Your task to perform on an android device: Open Android settings Image 0: 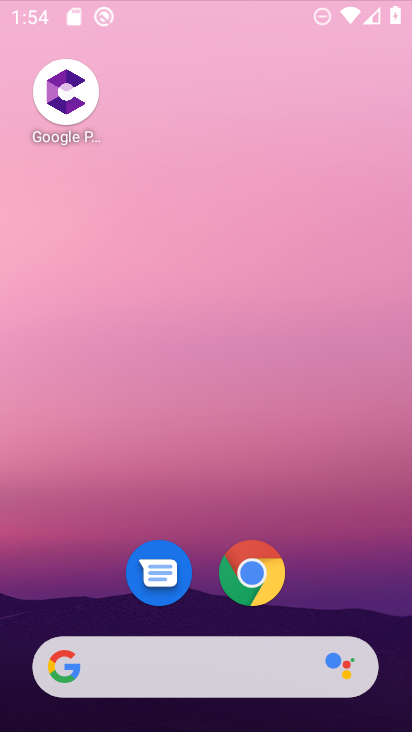
Step 0: drag from (291, 511) to (223, 145)
Your task to perform on an android device: Open Android settings Image 1: 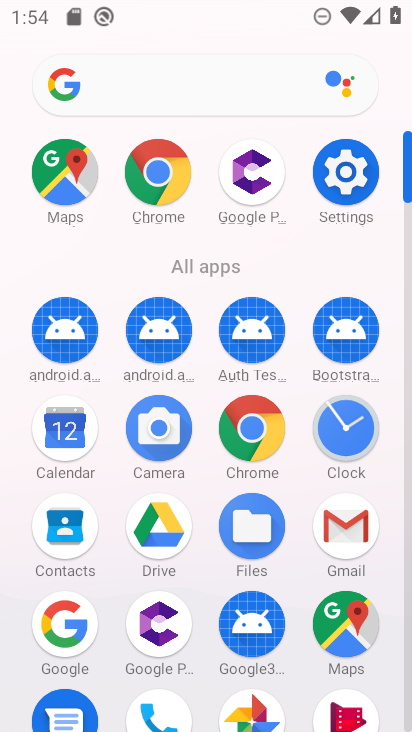
Step 1: click (338, 161)
Your task to perform on an android device: Open Android settings Image 2: 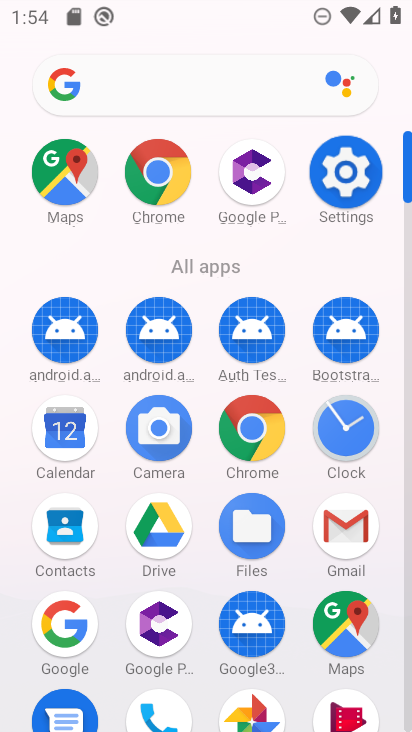
Step 2: click (338, 161)
Your task to perform on an android device: Open Android settings Image 3: 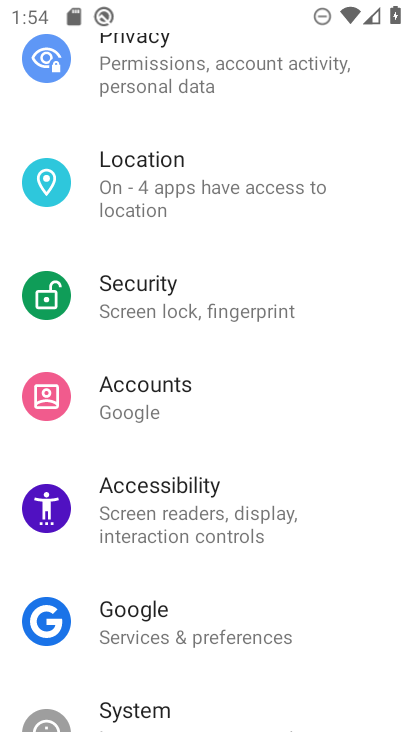
Step 3: drag from (210, 555) to (86, 135)
Your task to perform on an android device: Open Android settings Image 4: 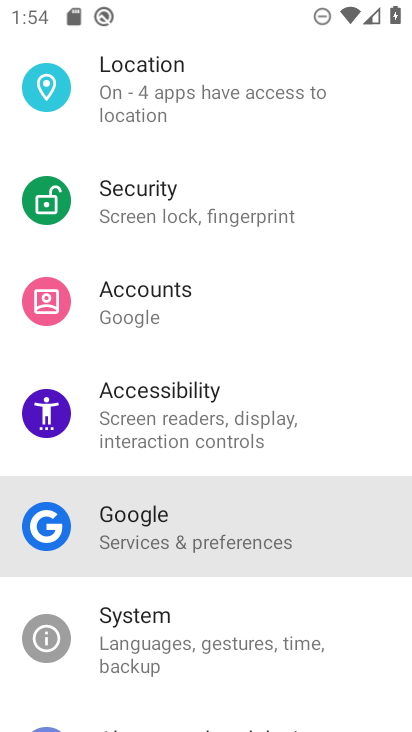
Step 4: drag from (173, 400) to (68, 112)
Your task to perform on an android device: Open Android settings Image 5: 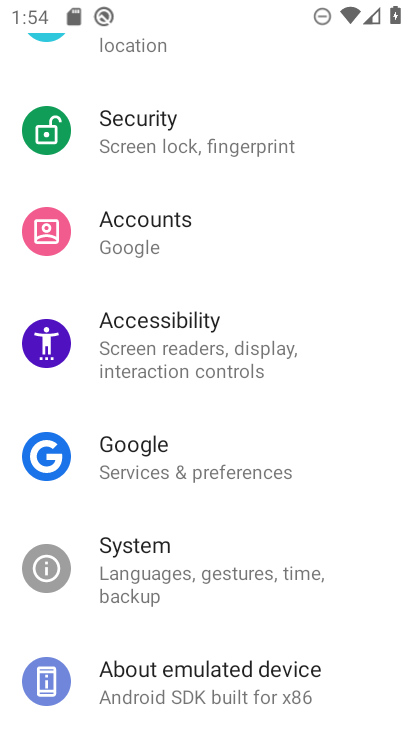
Step 5: click (193, 684)
Your task to perform on an android device: Open Android settings Image 6: 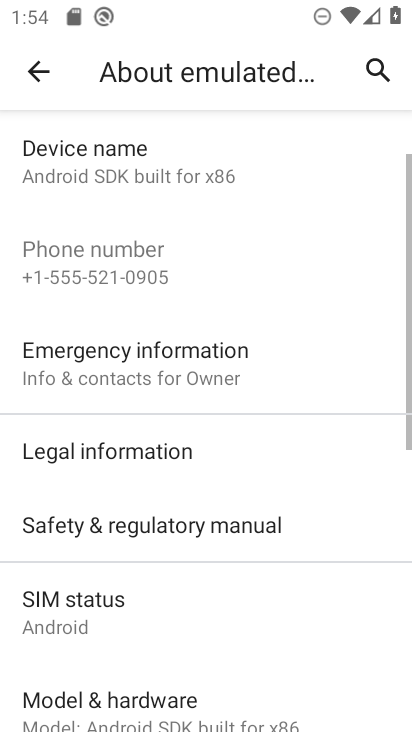
Step 6: drag from (180, 521) to (83, 153)
Your task to perform on an android device: Open Android settings Image 7: 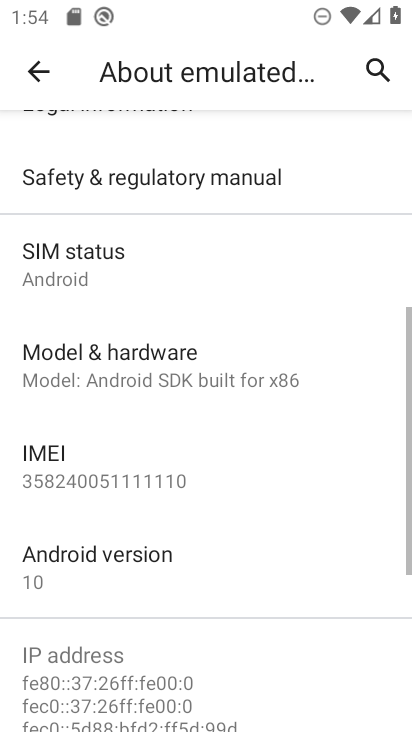
Step 7: drag from (112, 480) to (105, 135)
Your task to perform on an android device: Open Android settings Image 8: 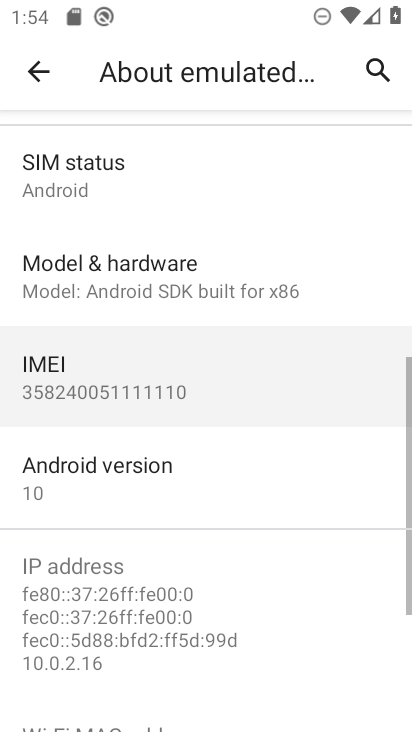
Step 8: drag from (156, 416) to (145, 27)
Your task to perform on an android device: Open Android settings Image 9: 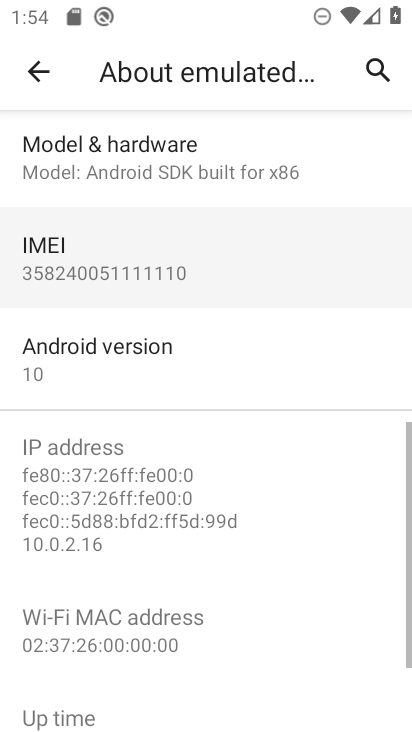
Step 9: drag from (166, 425) to (151, 100)
Your task to perform on an android device: Open Android settings Image 10: 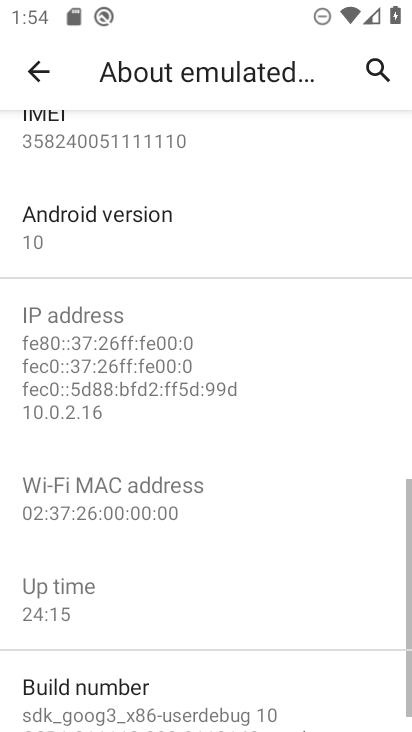
Step 10: drag from (123, 462) to (85, 23)
Your task to perform on an android device: Open Android settings Image 11: 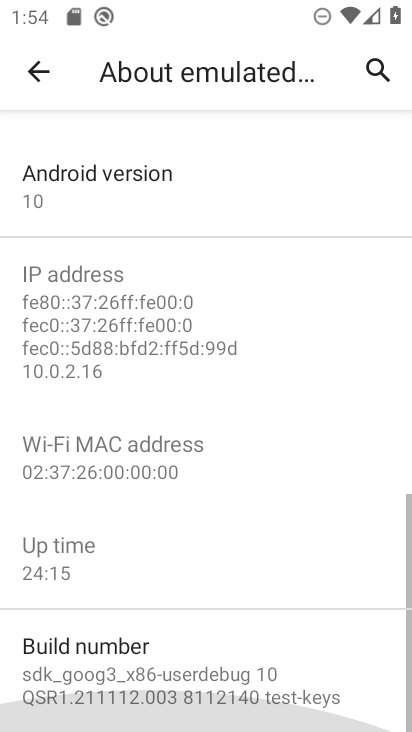
Step 11: drag from (155, 410) to (132, 48)
Your task to perform on an android device: Open Android settings Image 12: 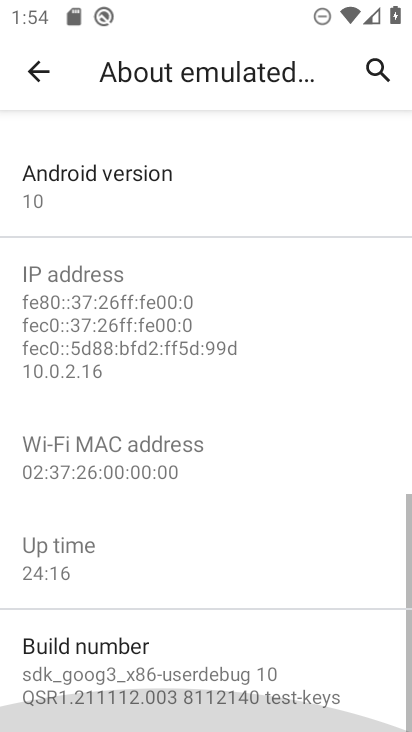
Step 12: drag from (138, 534) to (151, 130)
Your task to perform on an android device: Open Android settings Image 13: 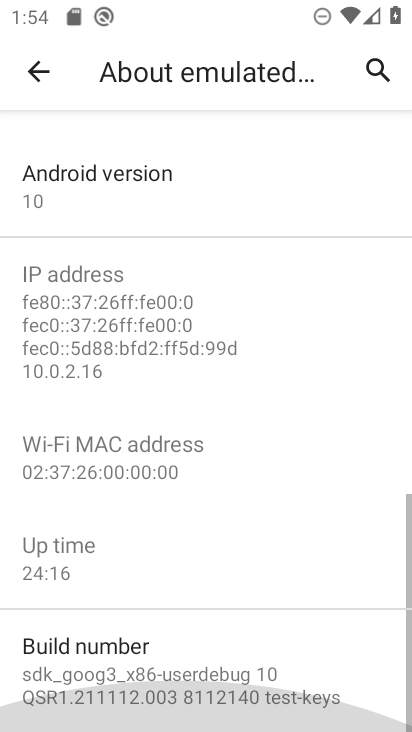
Step 13: drag from (135, 602) to (83, 174)
Your task to perform on an android device: Open Android settings Image 14: 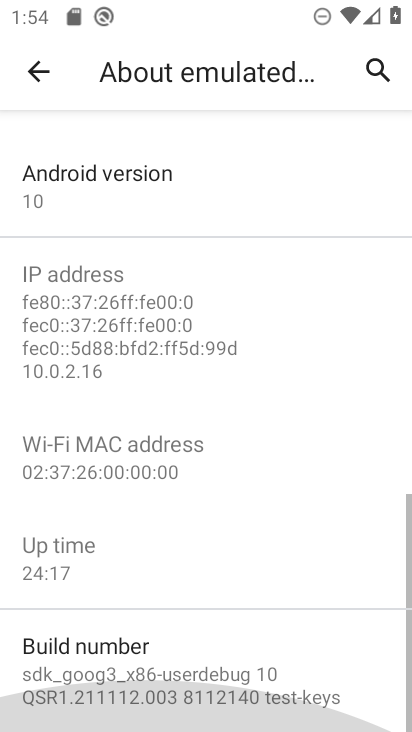
Step 14: drag from (129, 677) to (104, 190)
Your task to perform on an android device: Open Android settings Image 15: 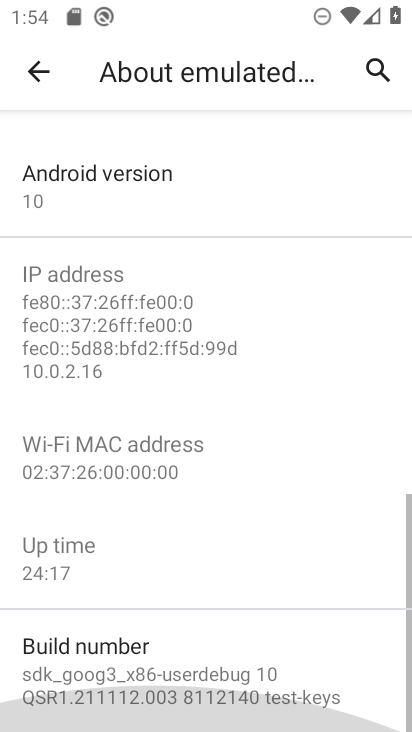
Step 15: drag from (111, 596) to (108, 232)
Your task to perform on an android device: Open Android settings Image 16: 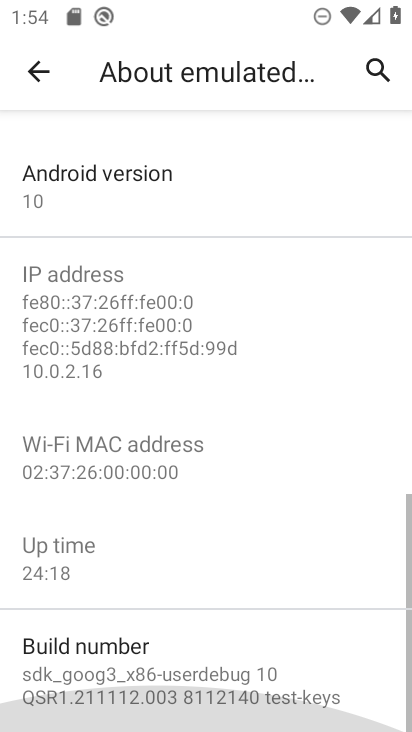
Step 16: drag from (107, 602) to (120, 215)
Your task to perform on an android device: Open Android settings Image 17: 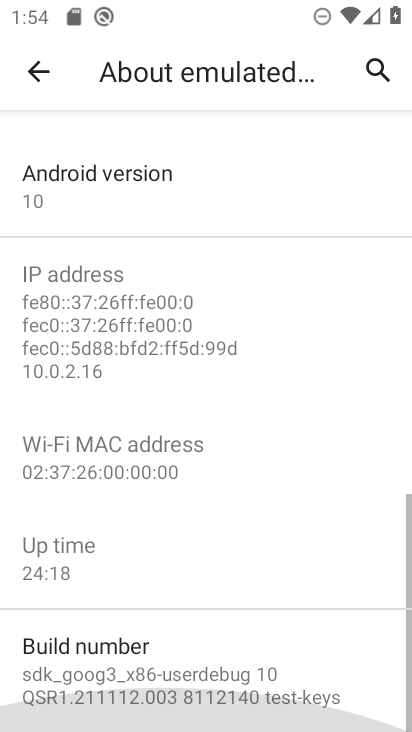
Step 17: drag from (153, 388) to (139, 165)
Your task to perform on an android device: Open Android settings Image 18: 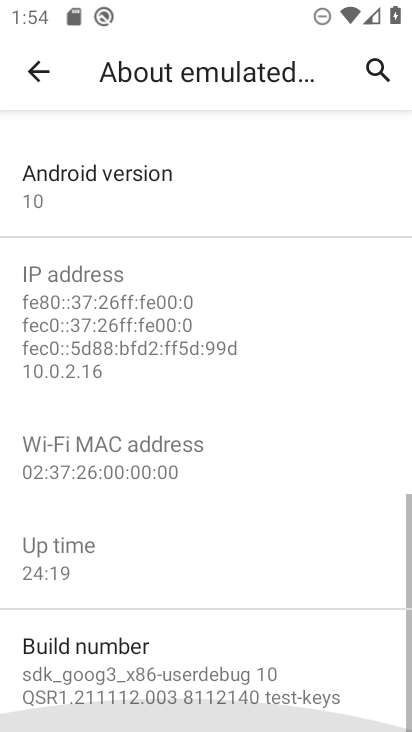
Step 18: drag from (140, 529) to (140, 214)
Your task to perform on an android device: Open Android settings Image 19: 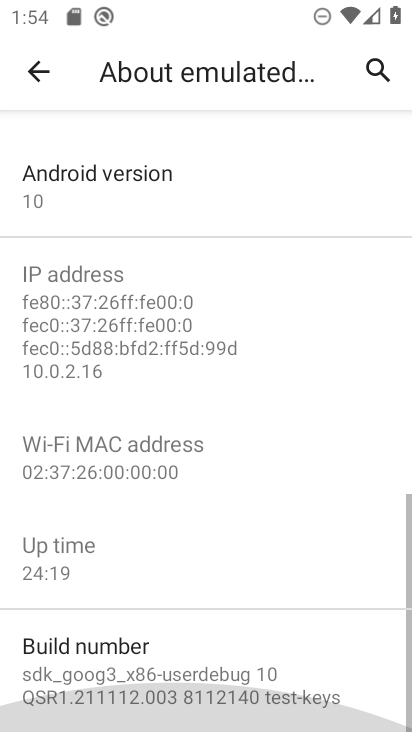
Step 19: drag from (131, 448) to (130, 195)
Your task to perform on an android device: Open Android settings Image 20: 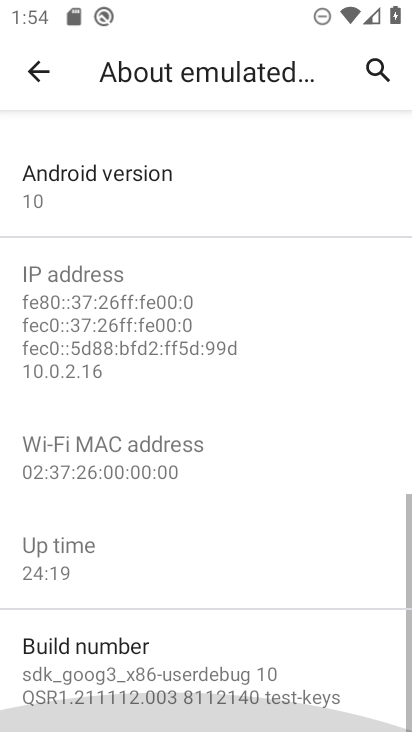
Step 20: drag from (160, 261) to (163, 57)
Your task to perform on an android device: Open Android settings Image 21: 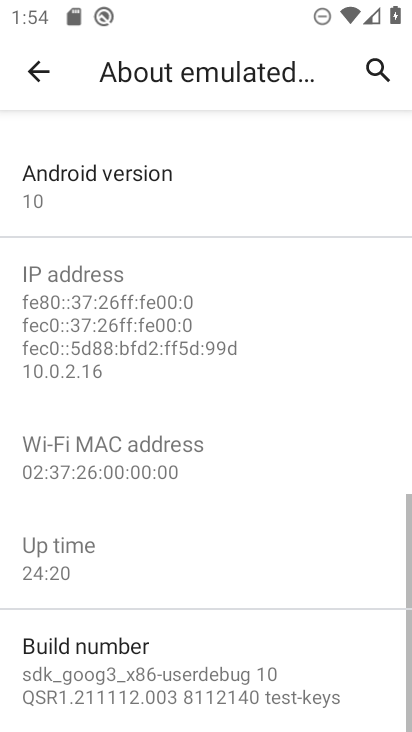
Step 21: click (169, 49)
Your task to perform on an android device: Open Android settings Image 22: 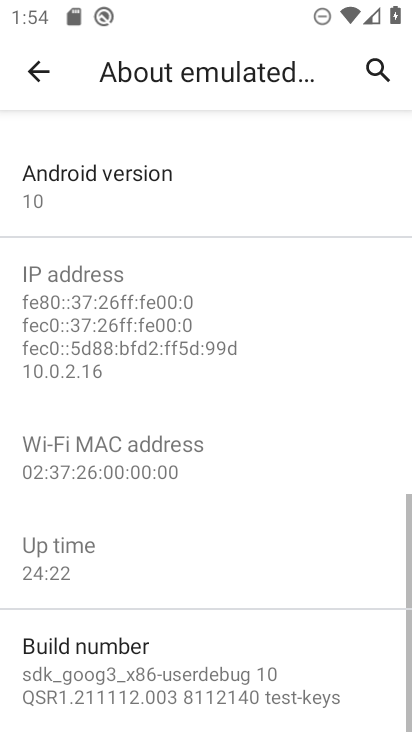
Step 22: task complete